Your task to perform on an android device: Check my email inbox Image 0: 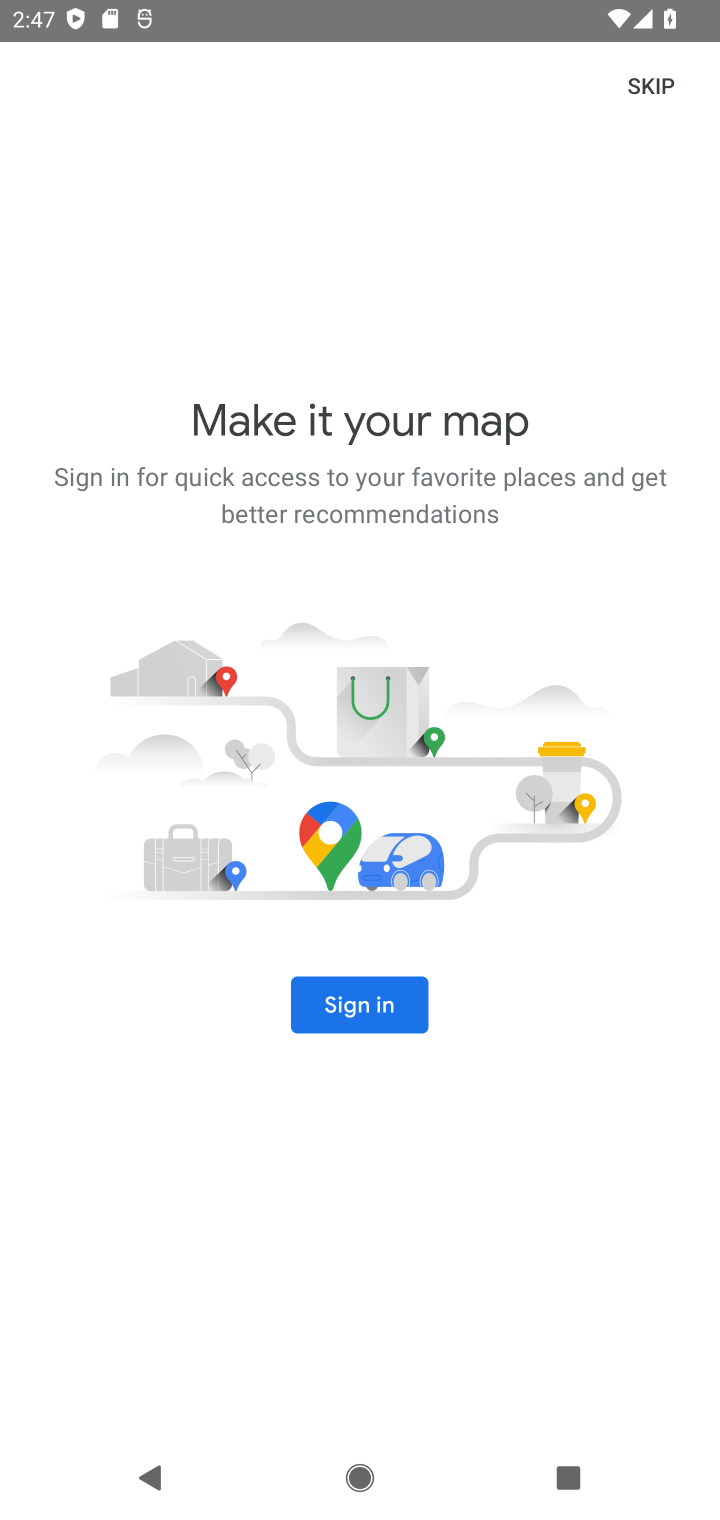
Step 0: press home button
Your task to perform on an android device: Check my email inbox Image 1: 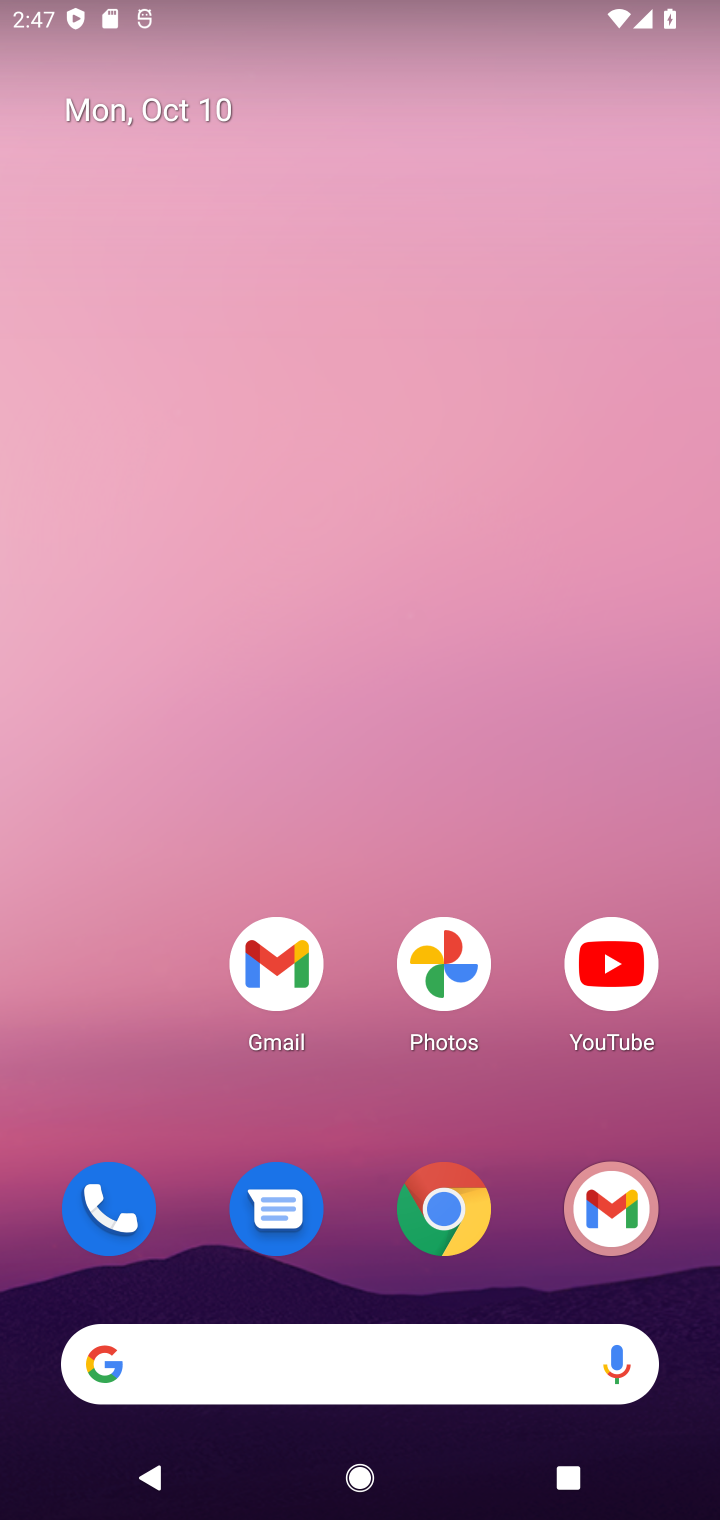
Step 1: click (310, 978)
Your task to perform on an android device: Check my email inbox Image 2: 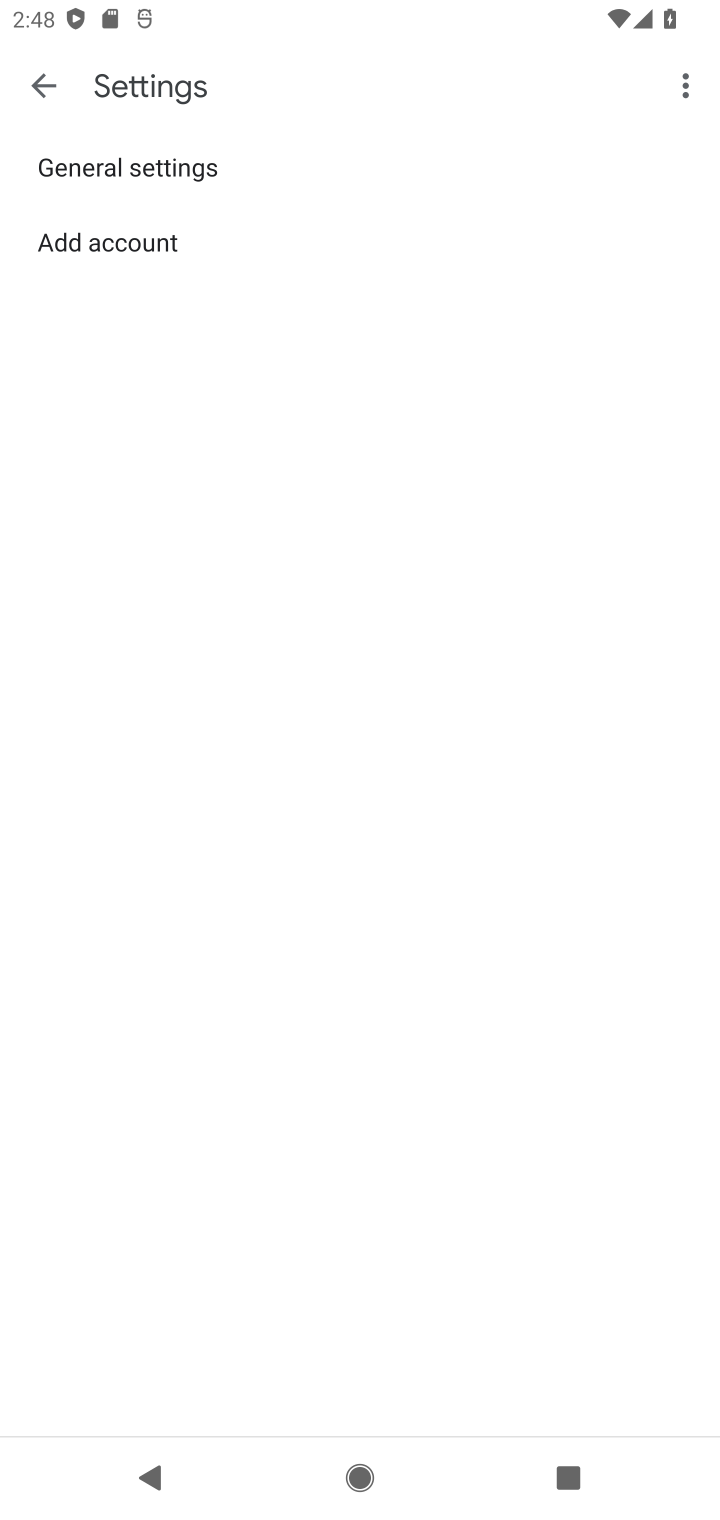
Step 2: task complete